Your task to perform on an android device: install app "Adobe Acrobat Reader: Edit PDF" Image 0: 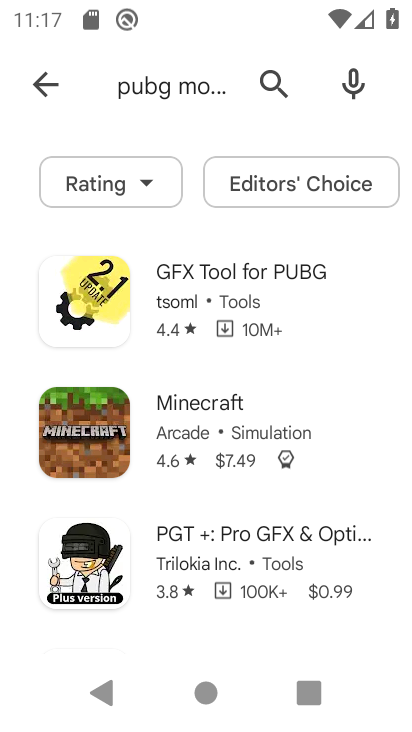
Step 0: click (267, 78)
Your task to perform on an android device: install app "Adobe Acrobat Reader: Edit PDF" Image 1: 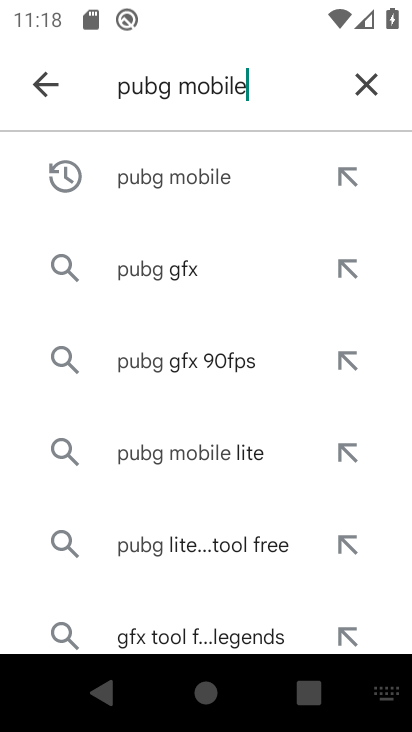
Step 1: click (375, 81)
Your task to perform on an android device: install app "Adobe Acrobat Reader: Edit PDF" Image 2: 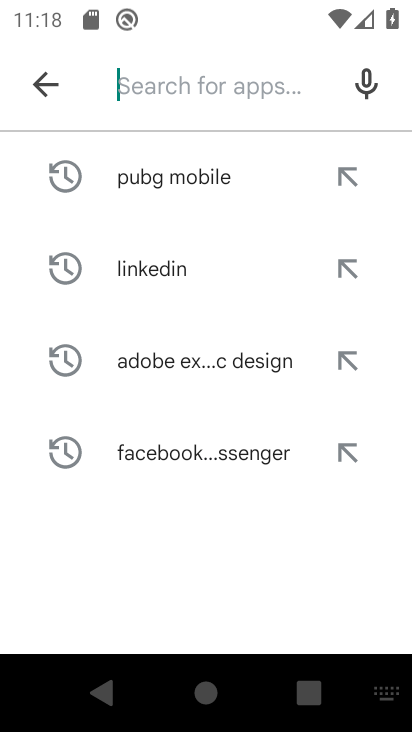
Step 2: type "Adobe Acrobat Reader: Edit PD"
Your task to perform on an android device: install app "Adobe Acrobat Reader: Edit PDF" Image 3: 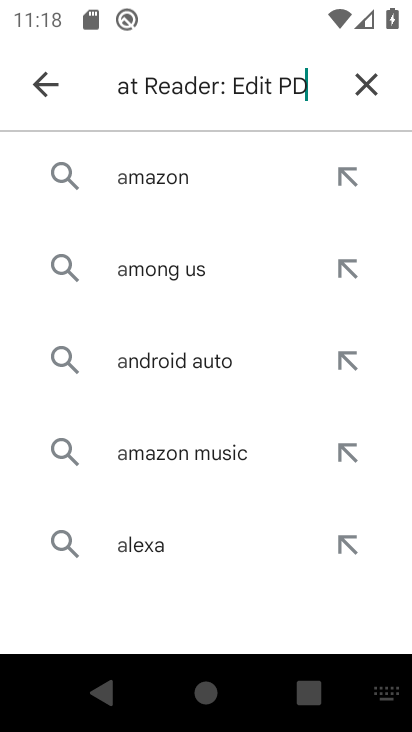
Step 3: type ""
Your task to perform on an android device: install app "Adobe Acrobat Reader: Edit PDF" Image 4: 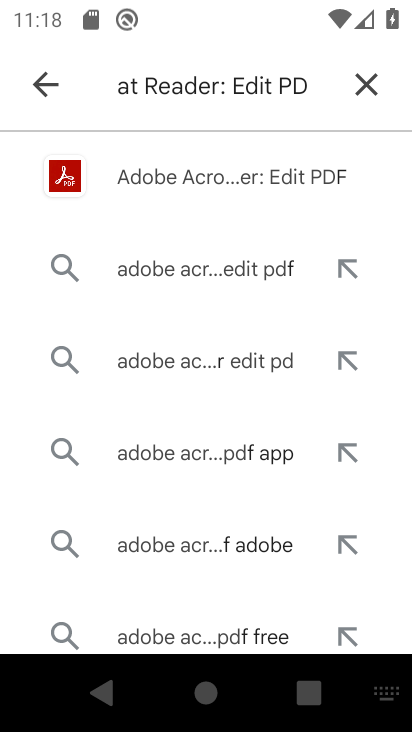
Step 4: click (218, 178)
Your task to perform on an android device: install app "Adobe Acrobat Reader: Edit PDF" Image 5: 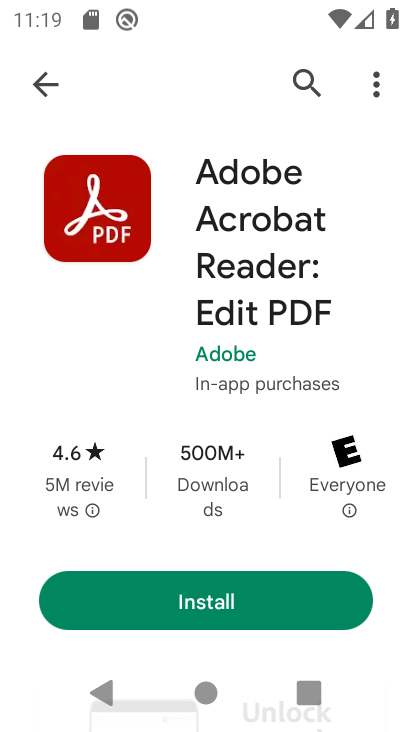
Step 5: click (217, 604)
Your task to perform on an android device: install app "Adobe Acrobat Reader: Edit PDF" Image 6: 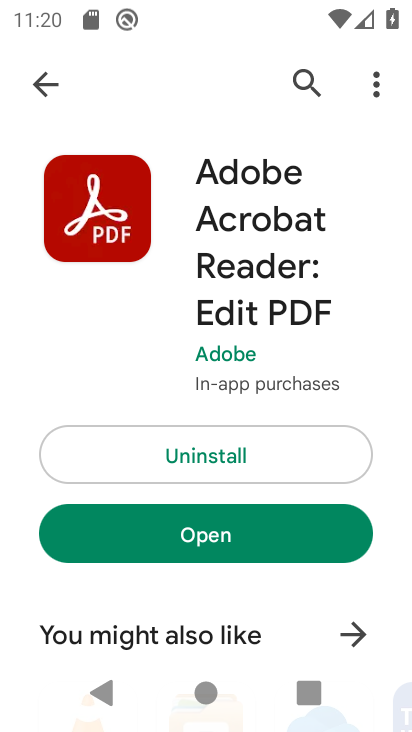
Step 6: task complete